Your task to perform on an android device: open a new tab in the chrome app Image 0: 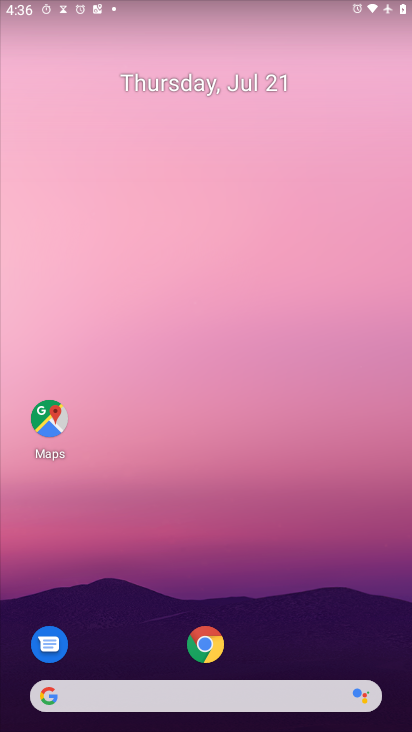
Step 0: press home button
Your task to perform on an android device: open a new tab in the chrome app Image 1: 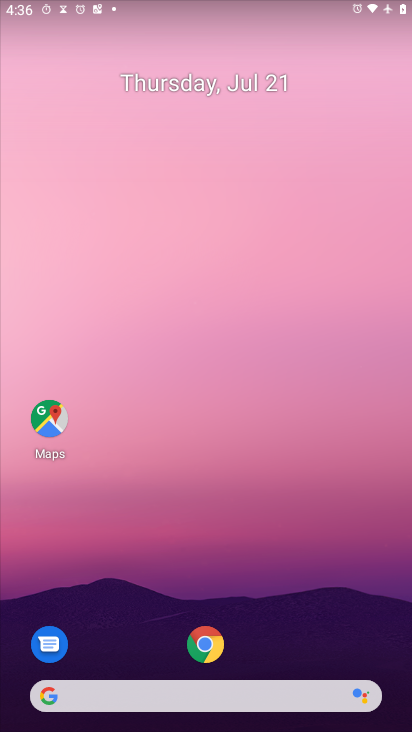
Step 1: drag from (309, 646) to (318, 105)
Your task to perform on an android device: open a new tab in the chrome app Image 2: 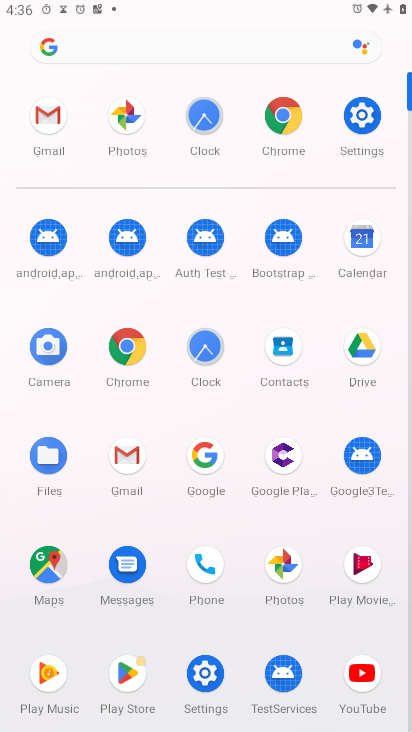
Step 2: click (291, 106)
Your task to perform on an android device: open a new tab in the chrome app Image 3: 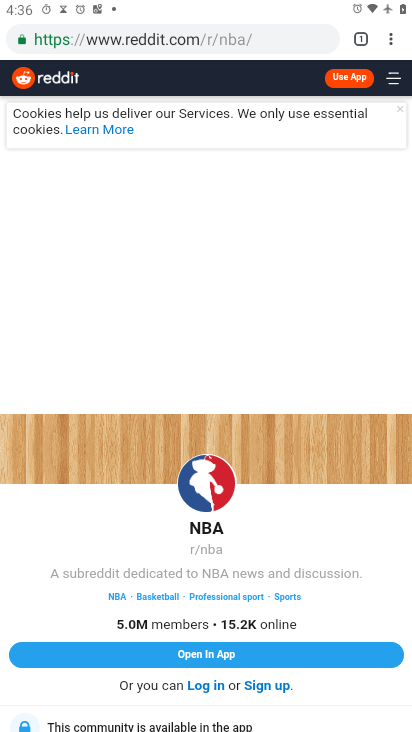
Step 3: click (360, 39)
Your task to perform on an android device: open a new tab in the chrome app Image 4: 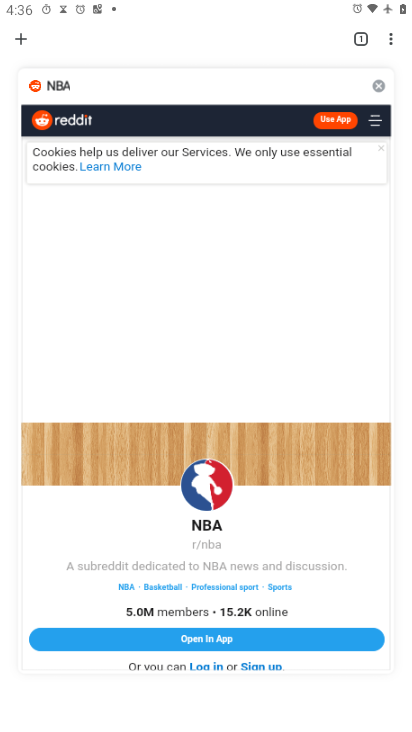
Step 4: click (23, 41)
Your task to perform on an android device: open a new tab in the chrome app Image 5: 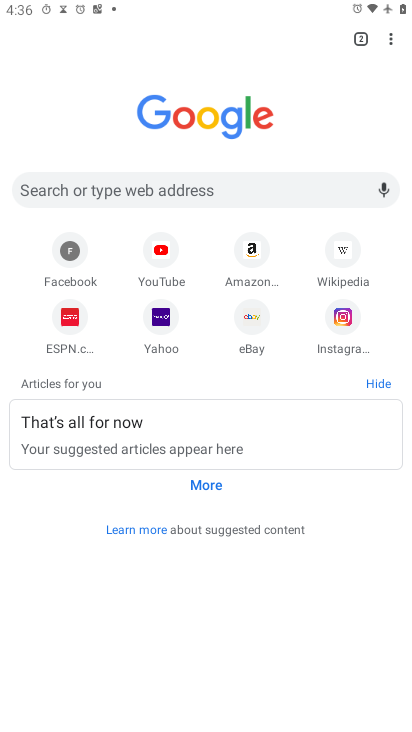
Step 5: task complete